Your task to perform on an android device: see creations saved in the google photos Image 0: 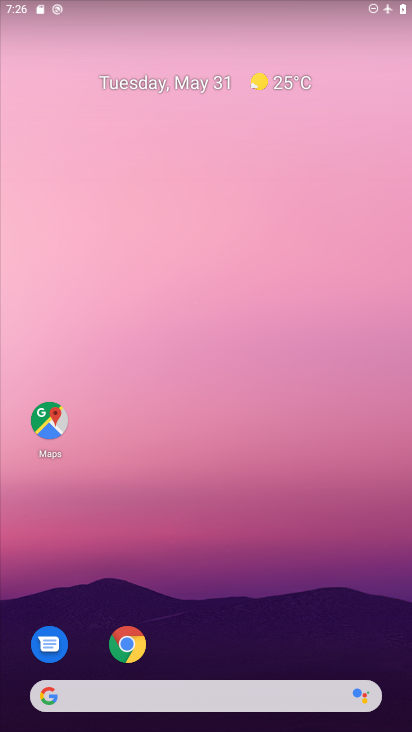
Step 0: drag from (249, 618) to (323, 45)
Your task to perform on an android device: see creations saved in the google photos Image 1: 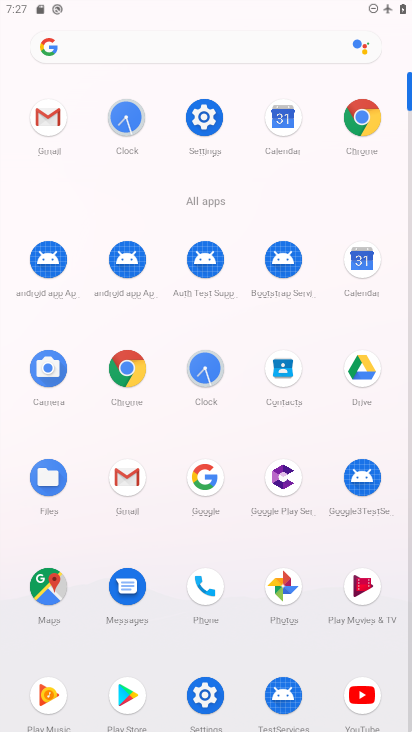
Step 1: click (276, 585)
Your task to perform on an android device: see creations saved in the google photos Image 2: 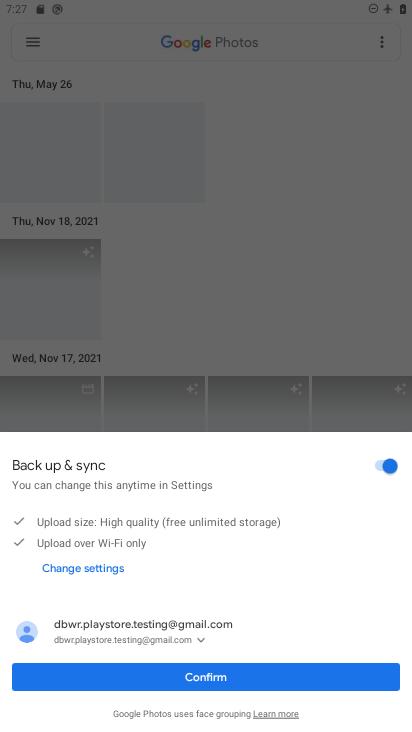
Step 2: click (220, 676)
Your task to perform on an android device: see creations saved in the google photos Image 3: 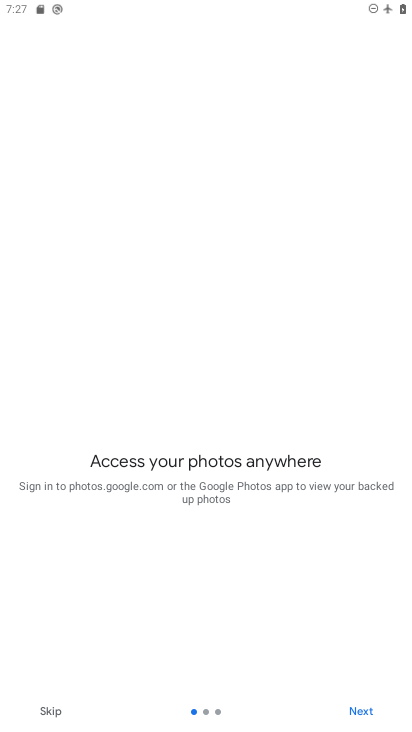
Step 3: click (378, 710)
Your task to perform on an android device: see creations saved in the google photos Image 4: 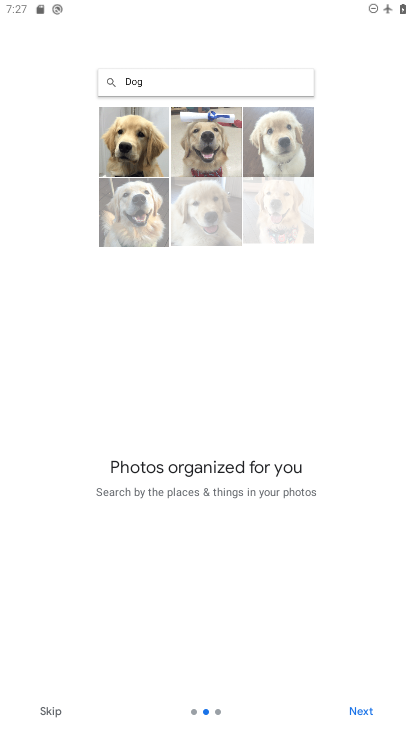
Step 4: click (360, 715)
Your task to perform on an android device: see creations saved in the google photos Image 5: 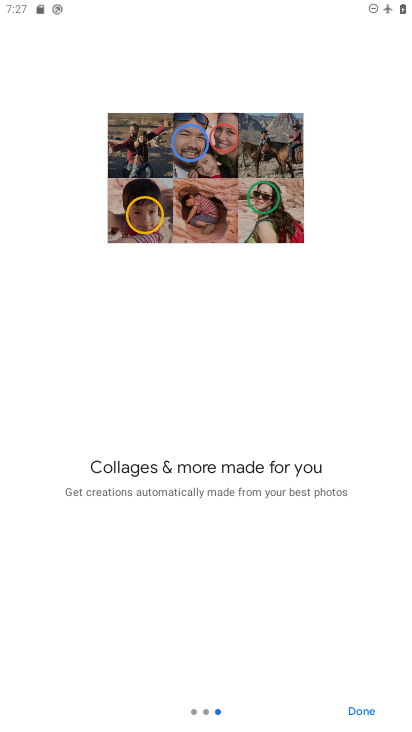
Step 5: click (362, 717)
Your task to perform on an android device: see creations saved in the google photos Image 6: 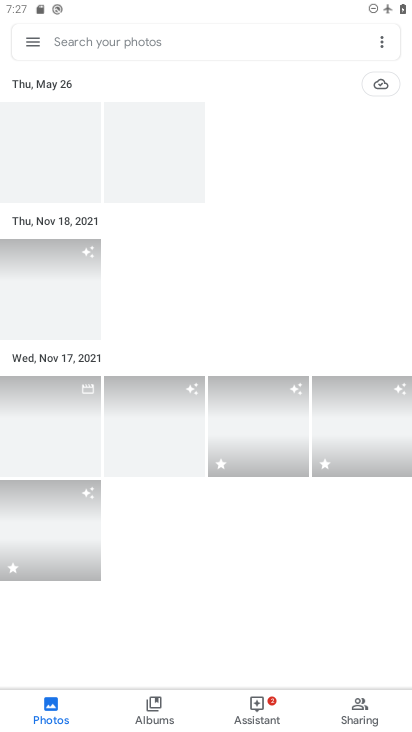
Step 6: click (241, 466)
Your task to perform on an android device: see creations saved in the google photos Image 7: 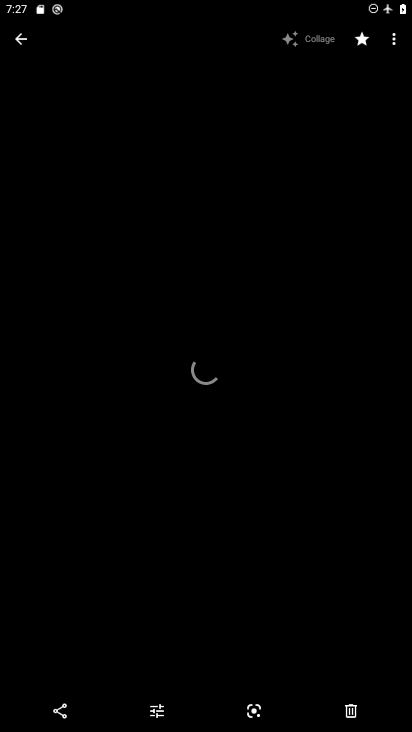
Step 7: click (391, 51)
Your task to perform on an android device: see creations saved in the google photos Image 8: 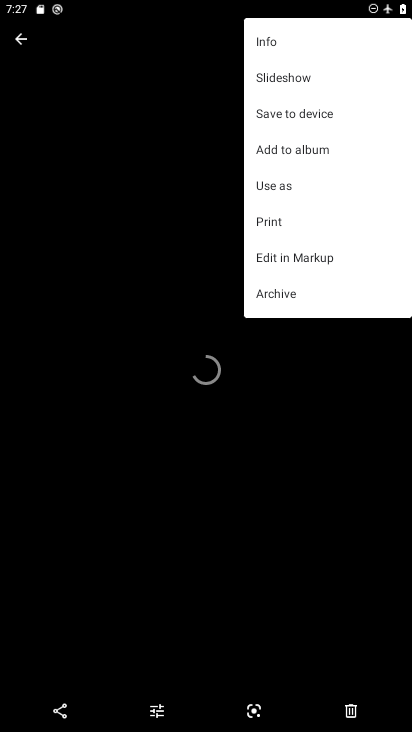
Step 8: click (296, 112)
Your task to perform on an android device: see creations saved in the google photos Image 9: 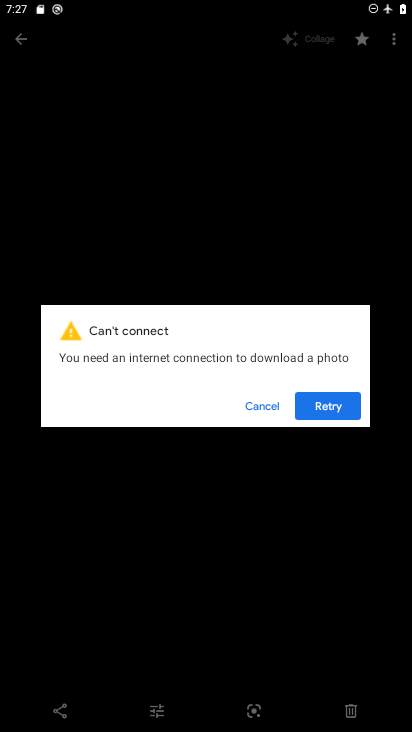
Step 9: task complete